Your task to perform on an android device: Open Chrome and go to settings Image 0: 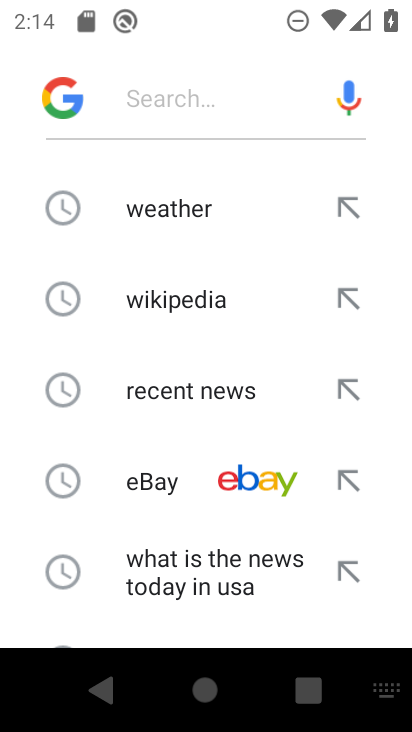
Step 0: press home button
Your task to perform on an android device: Open Chrome and go to settings Image 1: 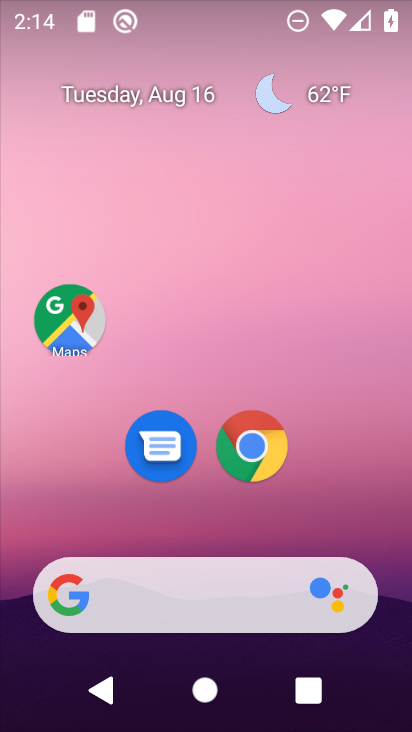
Step 1: drag from (212, 533) to (204, 12)
Your task to perform on an android device: Open Chrome and go to settings Image 2: 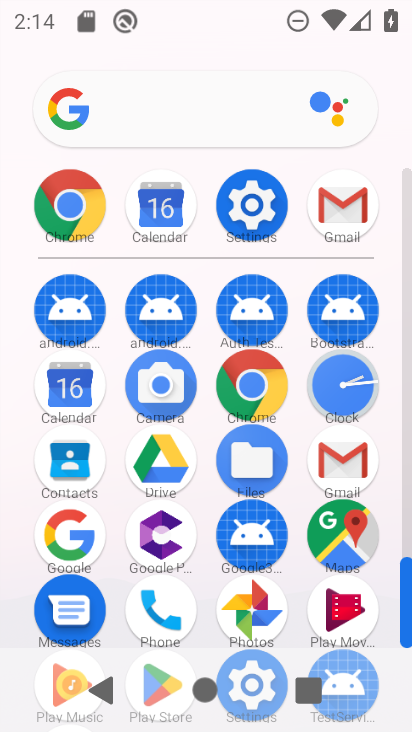
Step 2: click (249, 381)
Your task to perform on an android device: Open Chrome and go to settings Image 3: 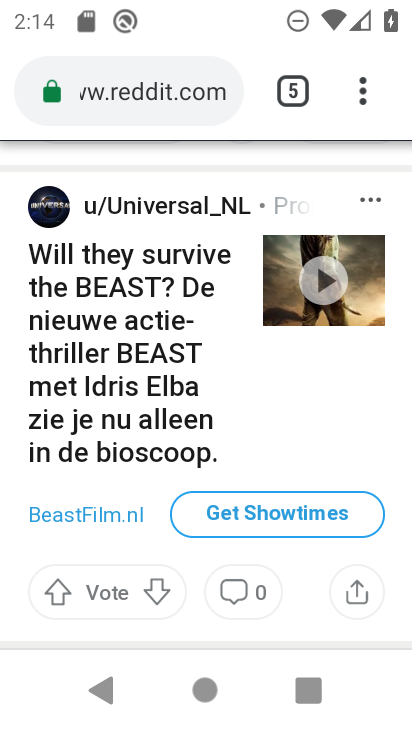
Step 3: click (362, 90)
Your task to perform on an android device: Open Chrome and go to settings Image 4: 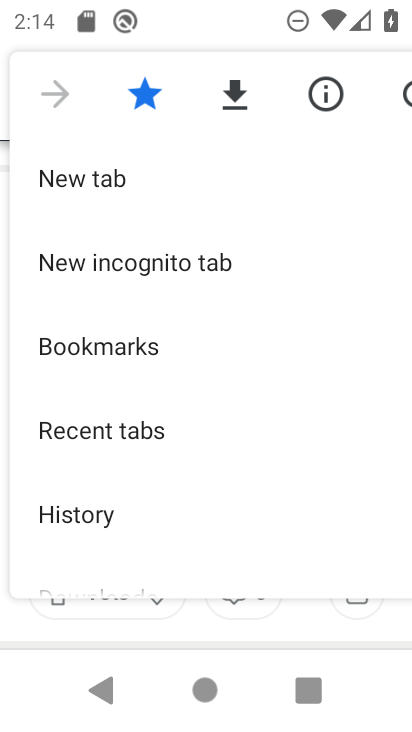
Step 4: drag from (150, 546) to (150, 63)
Your task to perform on an android device: Open Chrome and go to settings Image 5: 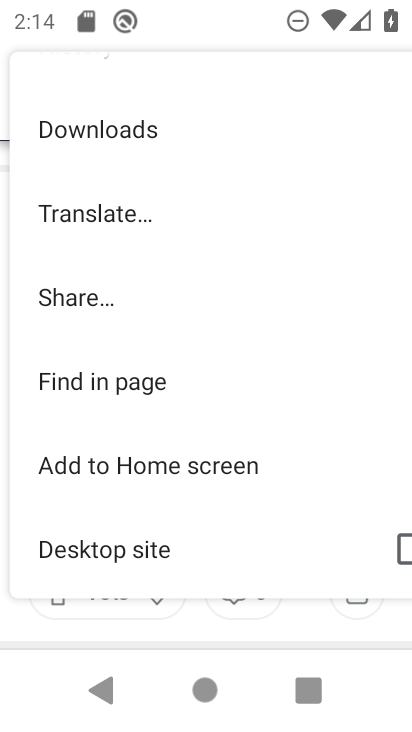
Step 5: drag from (195, 543) to (207, 64)
Your task to perform on an android device: Open Chrome and go to settings Image 6: 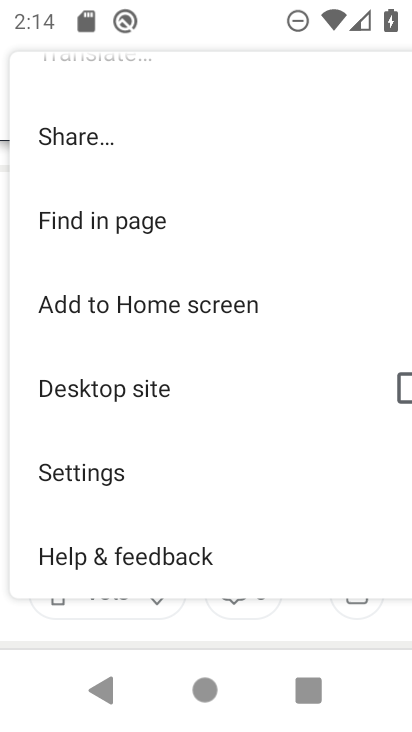
Step 6: click (144, 468)
Your task to perform on an android device: Open Chrome and go to settings Image 7: 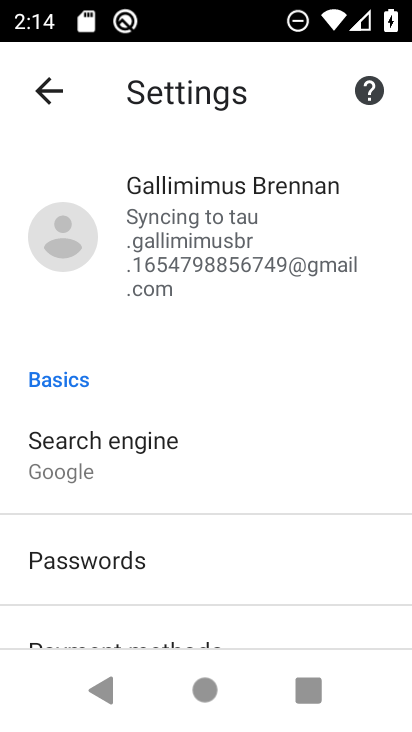
Step 7: task complete